Your task to perform on an android device: Search for "macbook pro 13 inch" on amazon, select the first entry, and add it to the cart. Image 0: 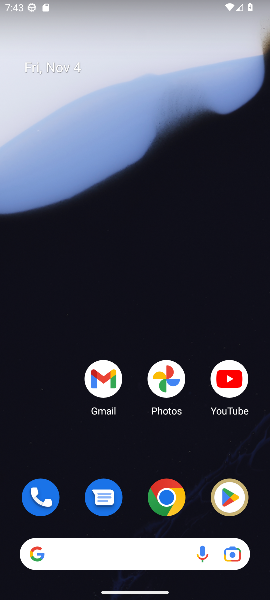
Step 0: click (166, 500)
Your task to perform on an android device: Search for "macbook pro 13 inch" on amazon, select the first entry, and add it to the cart. Image 1: 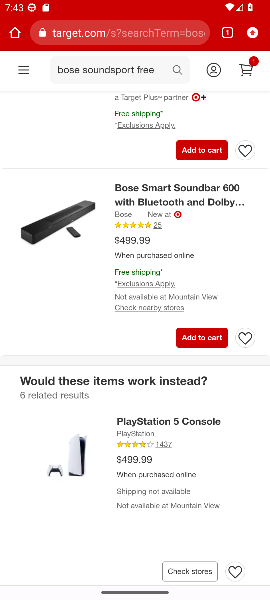
Step 1: click (126, 38)
Your task to perform on an android device: Search for "macbook pro 13 inch" on amazon, select the first entry, and add it to the cart. Image 2: 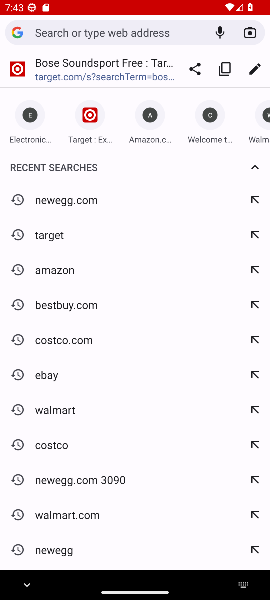
Step 2: click (58, 269)
Your task to perform on an android device: Search for "macbook pro 13 inch" on amazon, select the first entry, and add it to the cart. Image 3: 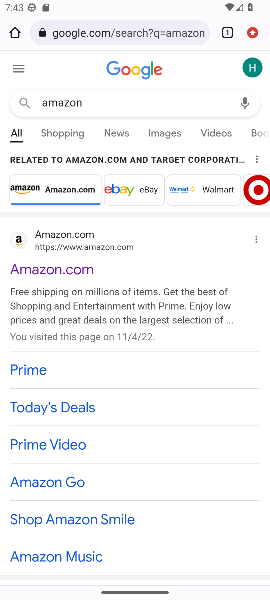
Step 3: click (48, 275)
Your task to perform on an android device: Search for "macbook pro 13 inch" on amazon, select the first entry, and add it to the cart. Image 4: 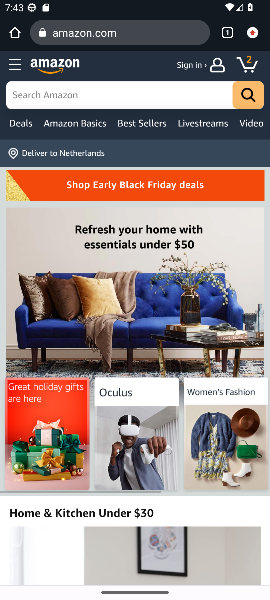
Step 4: click (54, 96)
Your task to perform on an android device: Search for "macbook pro 13 inch" on amazon, select the first entry, and add it to the cart. Image 5: 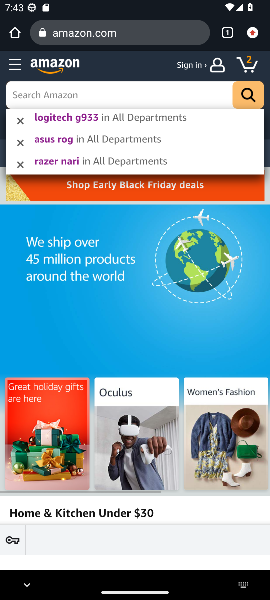
Step 5: type "macbook pro 13 inch"
Your task to perform on an android device: Search for "macbook pro 13 inch" on amazon, select the first entry, and add it to the cart. Image 6: 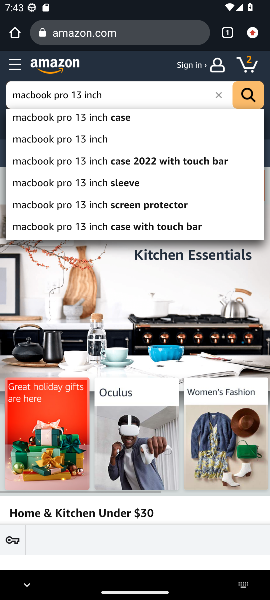
Step 6: click (101, 136)
Your task to perform on an android device: Search for "macbook pro 13 inch" on amazon, select the first entry, and add it to the cart. Image 7: 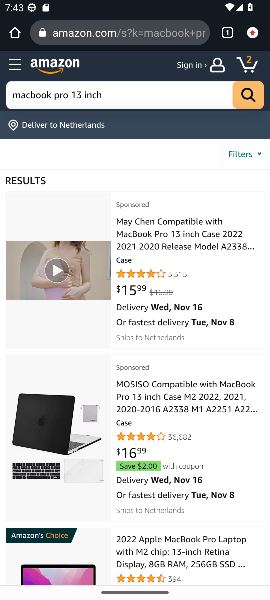
Step 7: click (125, 271)
Your task to perform on an android device: Search for "macbook pro 13 inch" on amazon, select the first entry, and add it to the cart. Image 8: 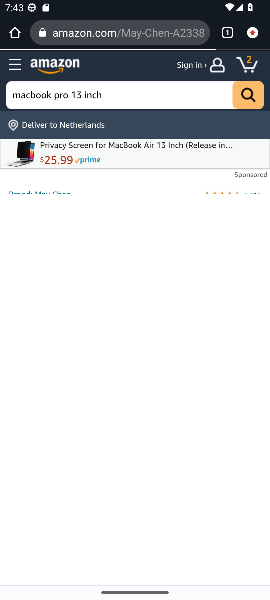
Step 8: drag from (138, 432) to (149, 232)
Your task to perform on an android device: Search for "macbook pro 13 inch" on amazon, select the first entry, and add it to the cart. Image 9: 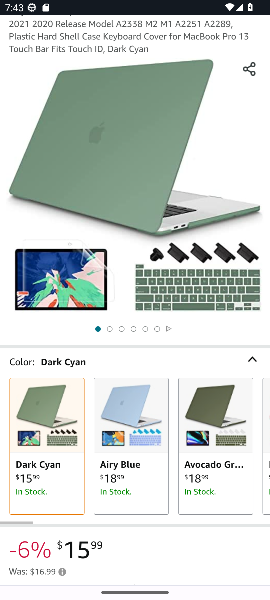
Step 9: drag from (149, 443) to (147, 281)
Your task to perform on an android device: Search for "macbook pro 13 inch" on amazon, select the first entry, and add it to the cart. Image 10: 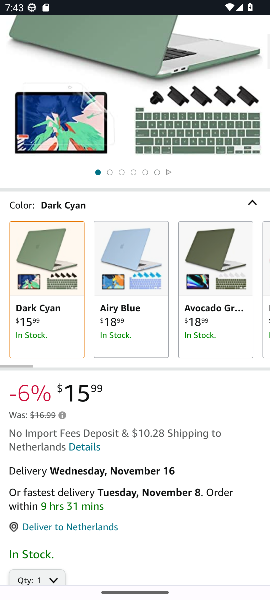
Step 10: drag from (141, 494) to (141, 283)
Your task to perform on an android device: Search for "macbook pro 13 inch" on amazon, select the first entry, and add it to the cart. Image 11: 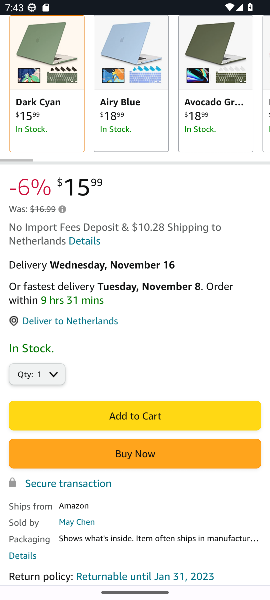
Step 11: click (126, 415)
Your task to perform on an android device: Search for "macbook pro 13 inch" on amazon, select the first entry, and add it to the cart. Image 12: 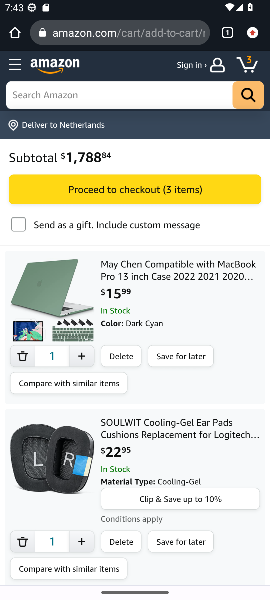
Step 12: task complete